Your task to perform on an android device: Go to notification settings Image 0: 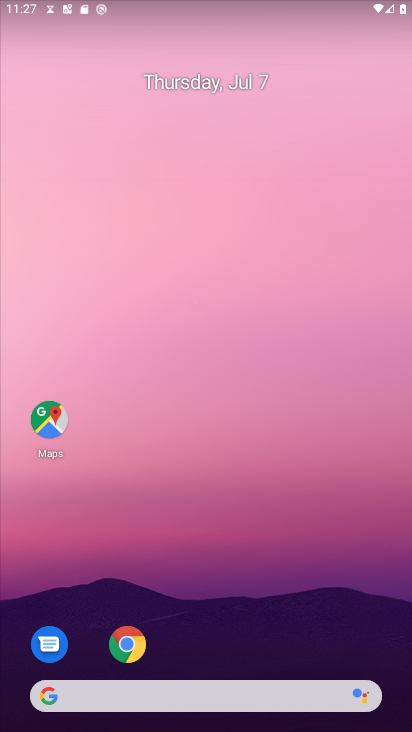
Step 0: press home button
Your task to perform on an android device: Go to notification settings Image 1: 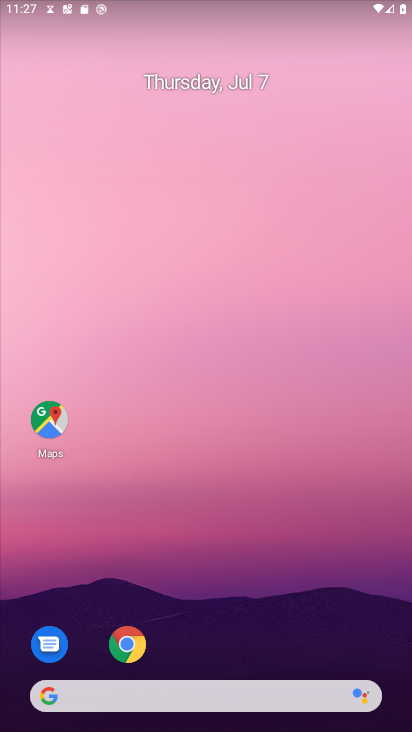
Step 1: drag from (283, 534) to (216, 110)
Your task to perform on an android device: Go to notification settings Image 2: 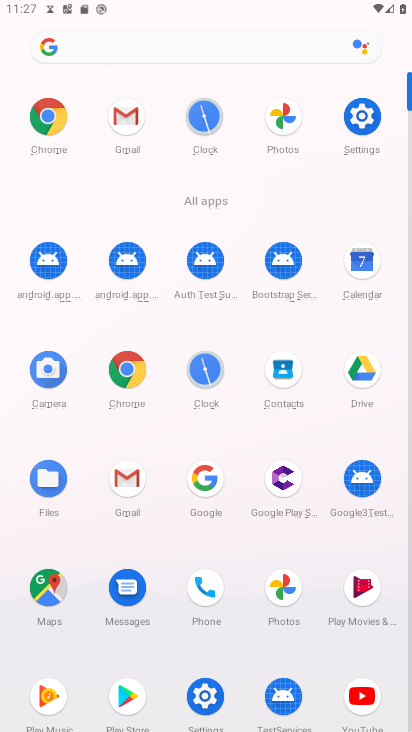
Step 2: click (350, 113)
Your task to perform on an android device: Go to notification settings Image 3: 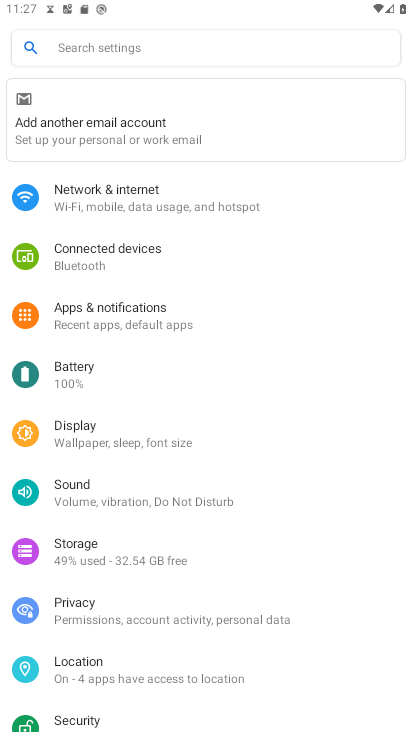
Step 3: click (100, 320)
Your task to perform on an android device: Go to notification settings Image 4: 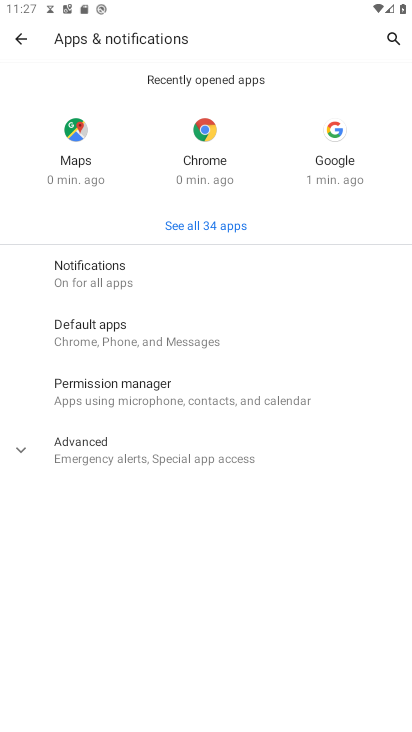
Step 4: click (110, 278)
Your task to perform on an android device: Go to notification settings Image 5: 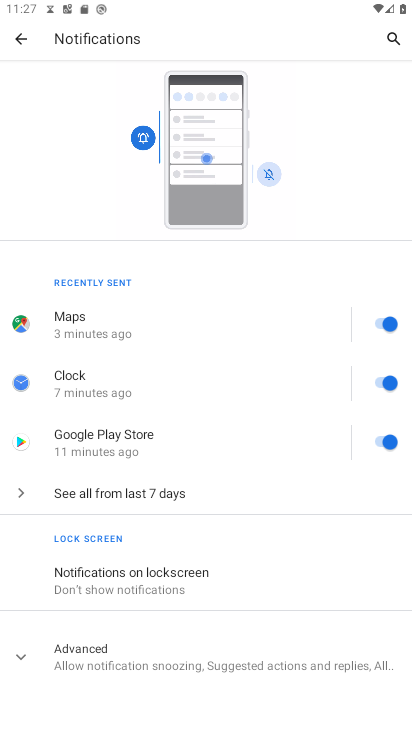
Step 5: drag from (226, 616) to (156, 281)
Your task to perform on an android device: Go to notification settings Image 6: 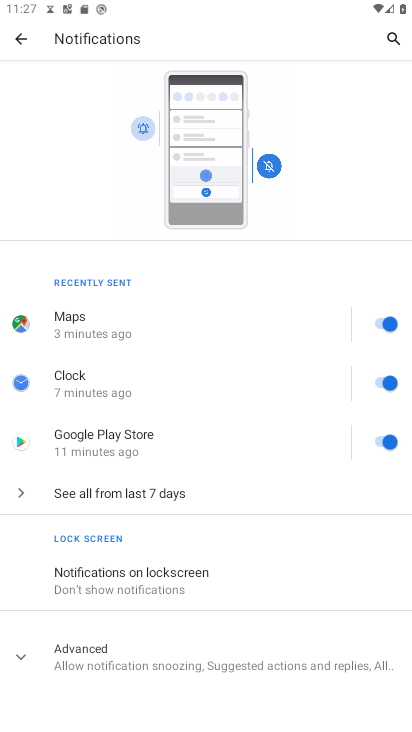
Step 6: click (24, 648)
Your task to perform on an android device: Go to notification settings Image 7: 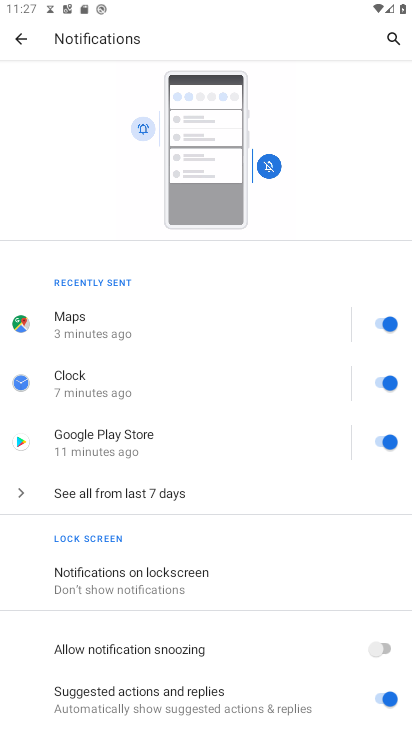
Step 7: task complete